Your task to perform on an android device: What's the news about the US? Image 0: 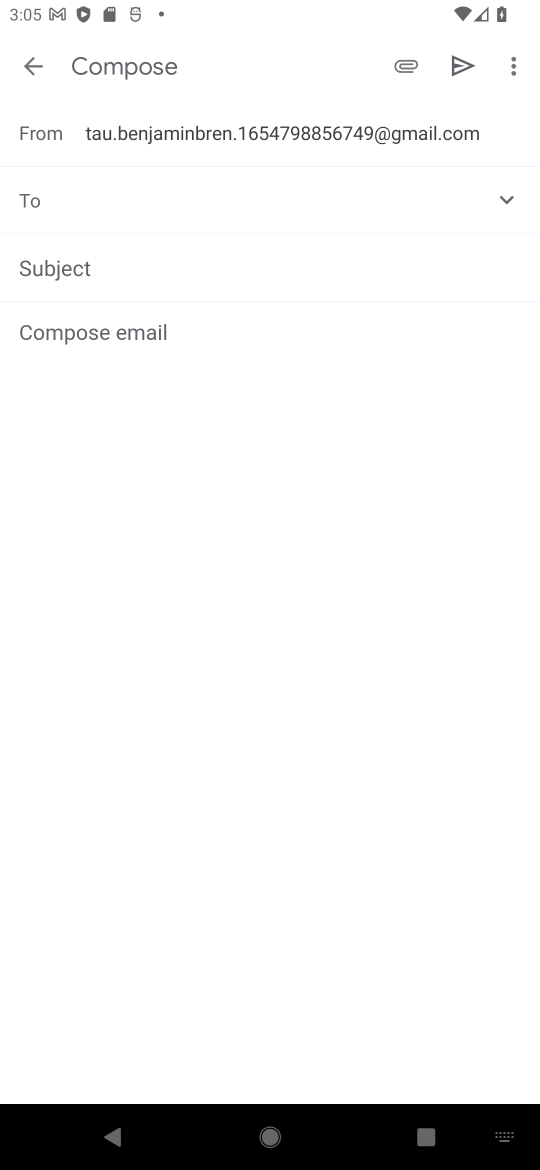
Step 0: press home button
Your task to perform on an android device: What's the news about the US? Image 1: 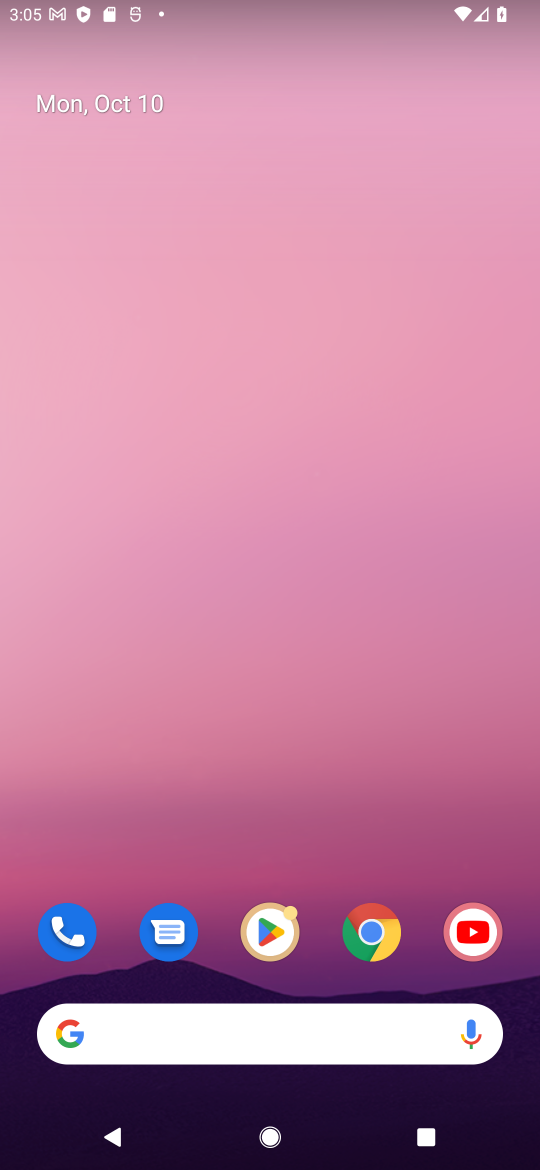
Step 1: click (307, 1030)
Your task to perform on an android device: What's the news about the US? Image 2: 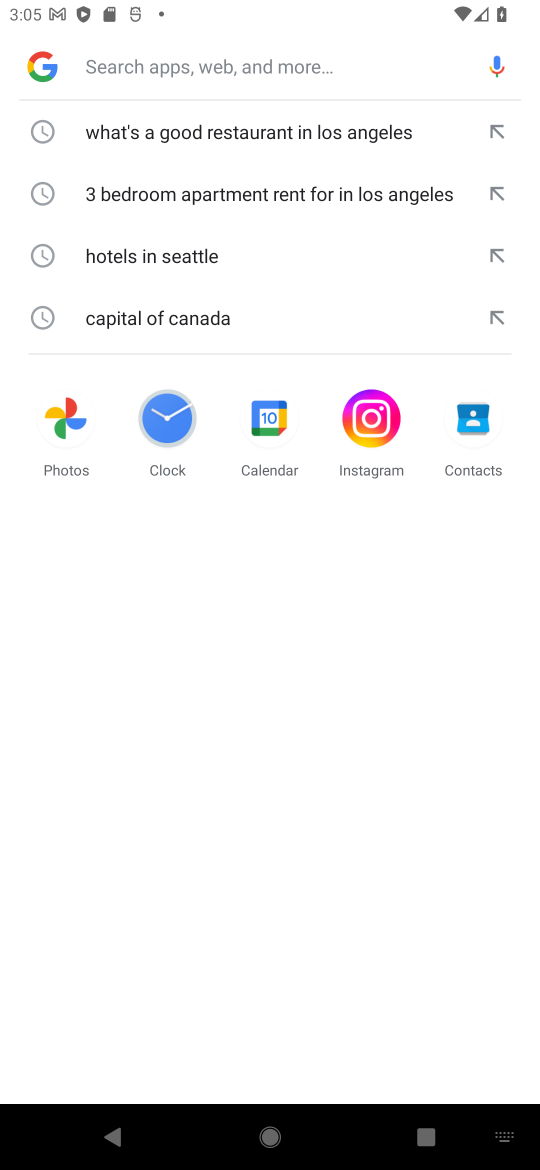
Step 2: type "What's the news about the US"
Your task to perform on an android device: What's the news about the US? Image 3: 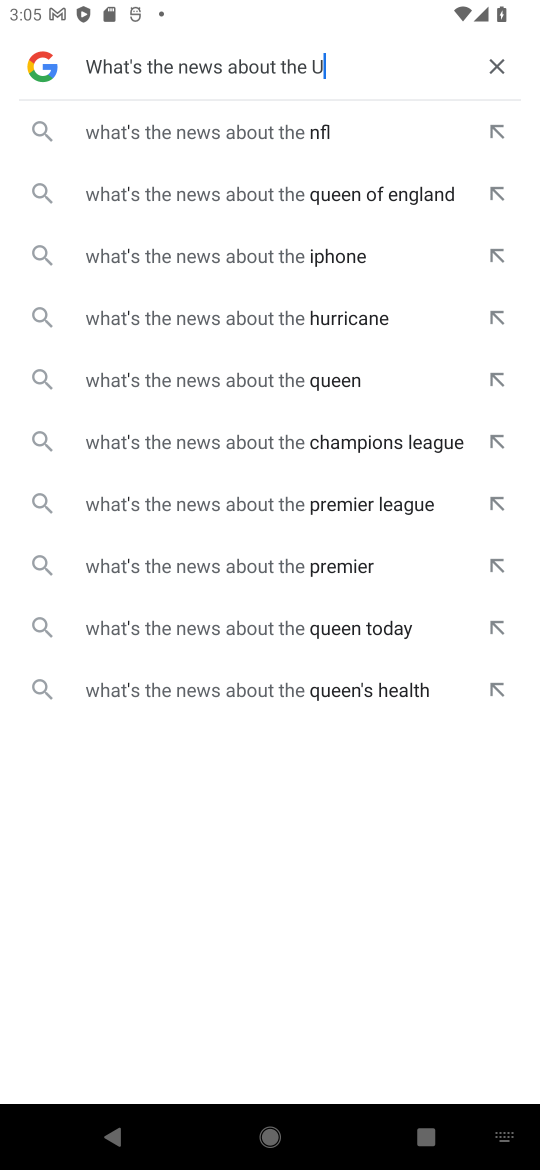
Step 3: press enter
Your task to perform on an android device: What's the news about the US? Image 4: 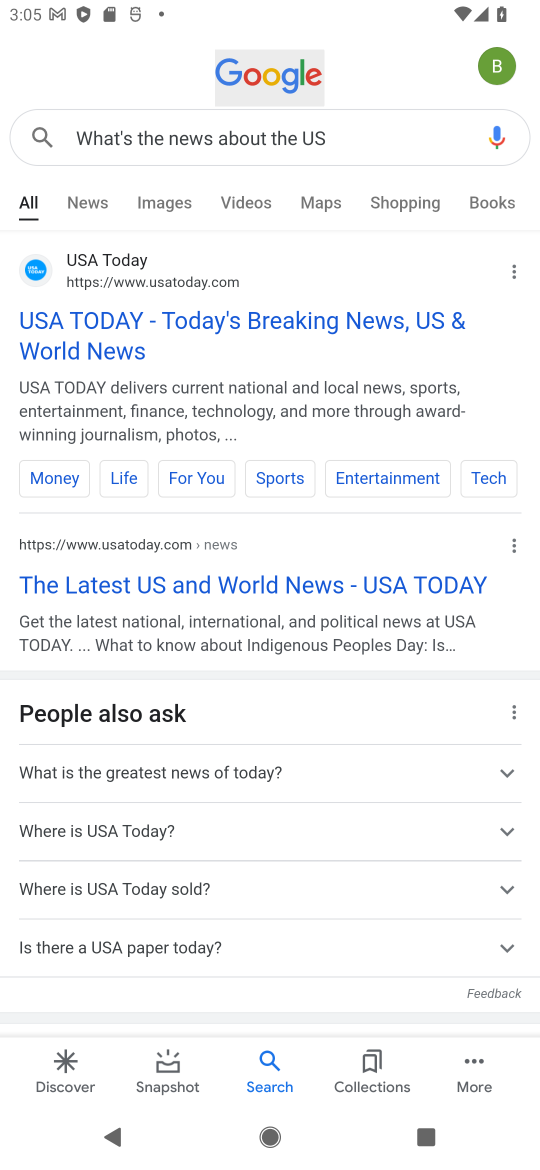
Step 4: click (223, 327)
Your task to perform on an android device: What's the news about the US? Image 5: 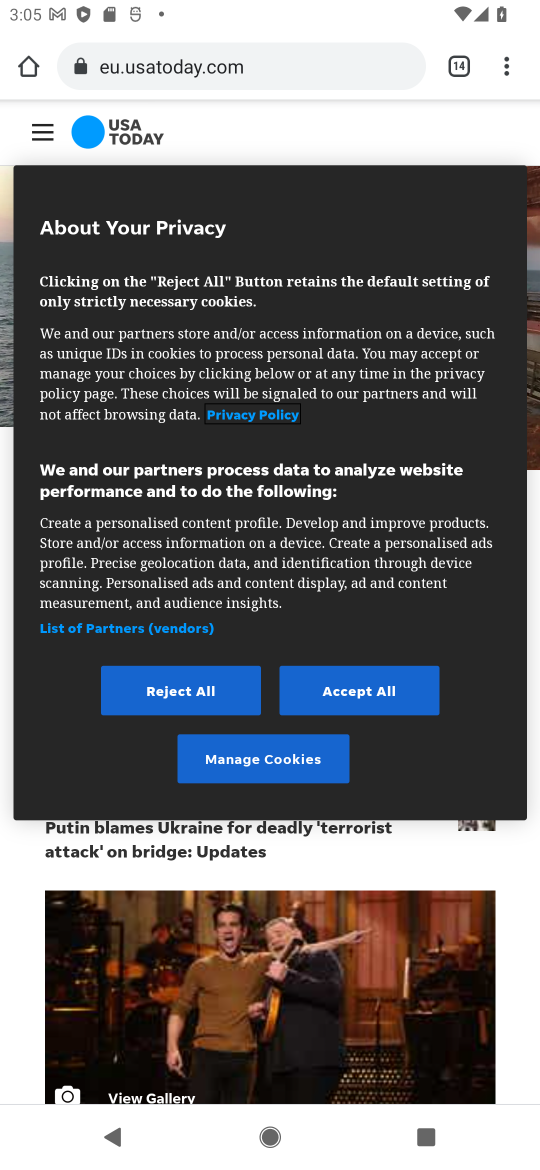
Step 5: click (399, 696)
Your task to perform on an android device: What's the news about the US? Image 6: 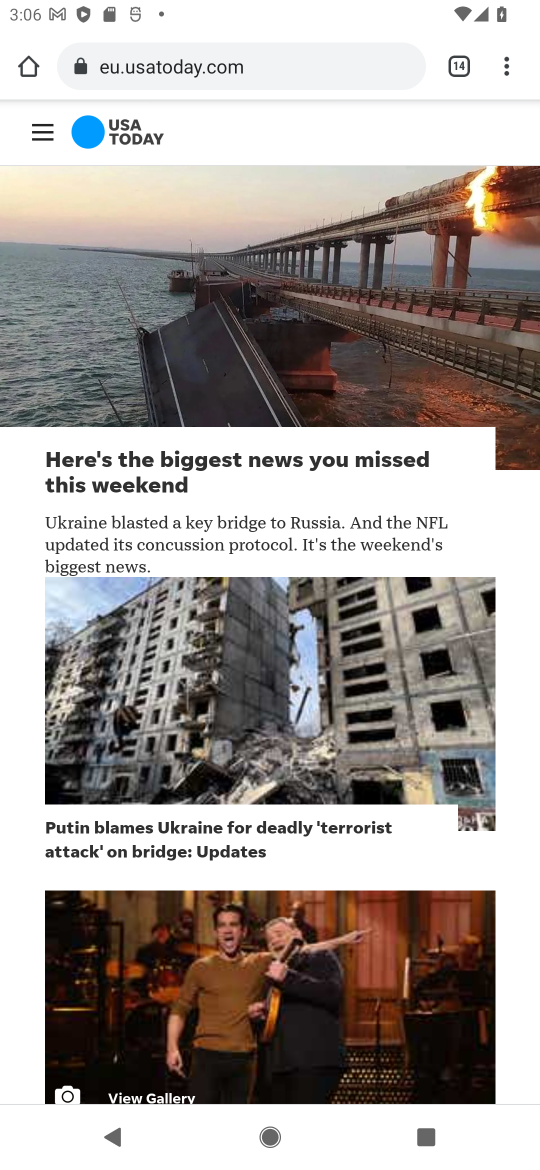
Step 6: task complete